Your task to perform on an android device: See recent photos Image 0: 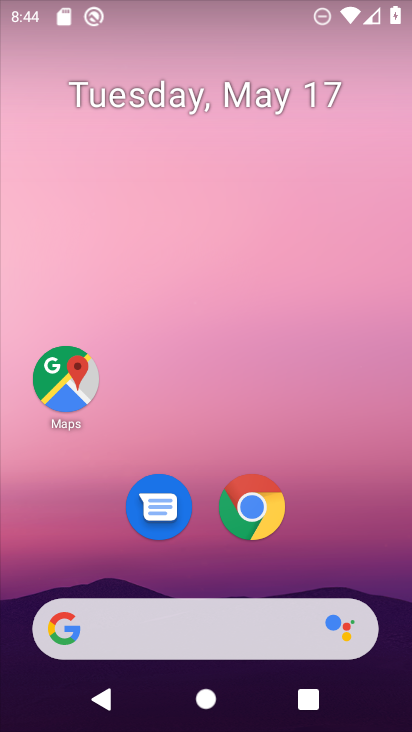
Step 0: drag from (384, 481) to (275, 5)
Your task to perform on an android device: See recent photos Image 1: 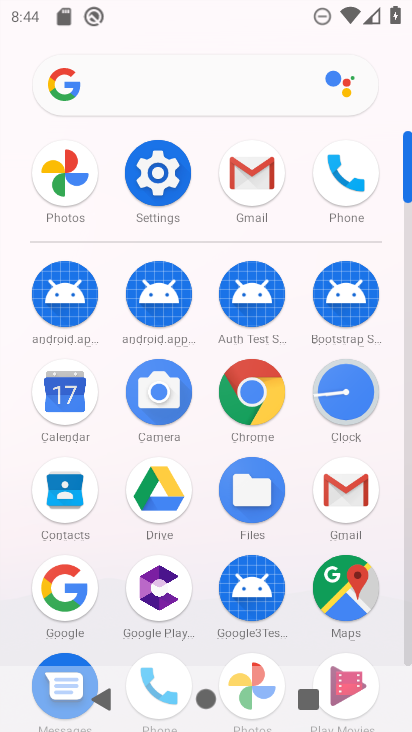
Step 1: click (59, 169)
Your task to perform on an android device: See recent photos Image 2: 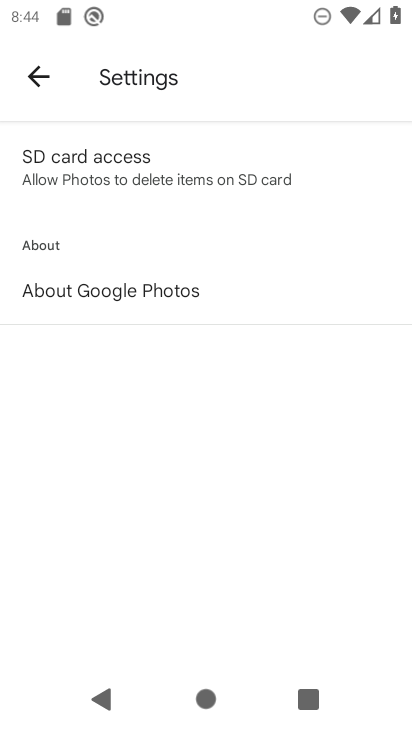
Step 2: click (32, 63)
Your task to perform on an android device: See recent photos Image 3: 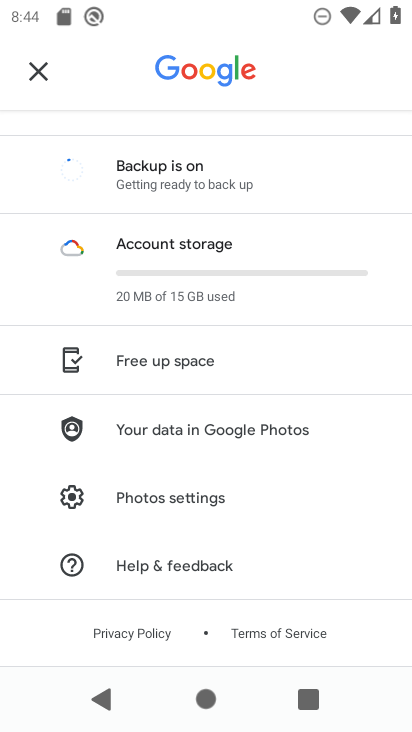
Step 3: press back button
Your task to perform on an android device: See recent photos Image 4: 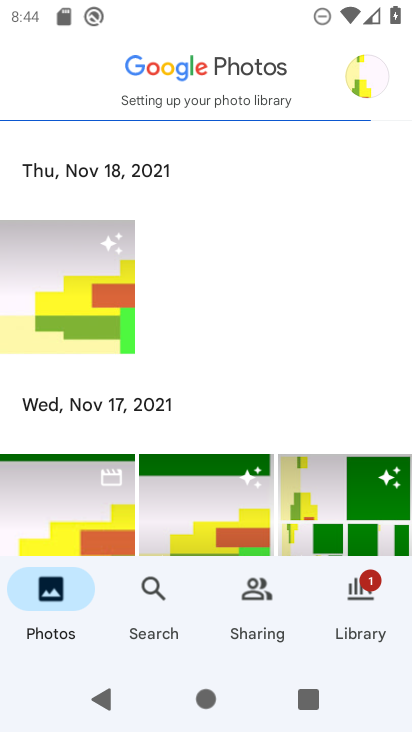
Step 4: click (359, 609)
Your task to perform on an android device: See recent photos Image 5: 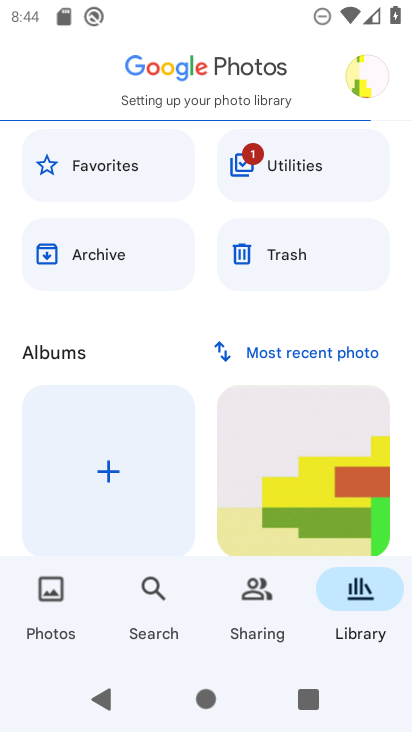
Step 5: drag from (328, 430) to (316, 159)
Your task to perform on an android device: See recent photos Image 6: 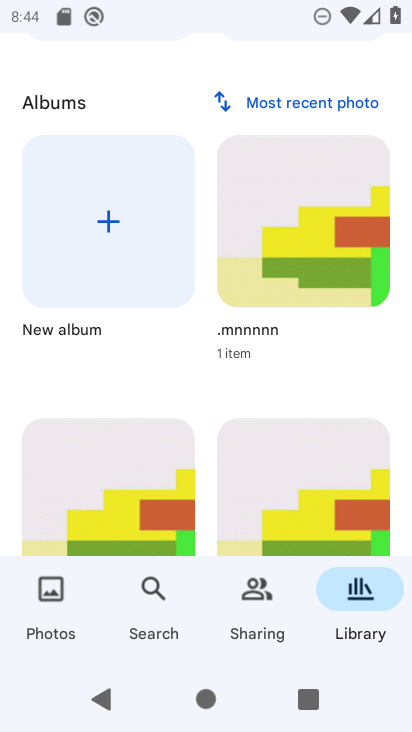
Step 6: click (312, 104)
Your task to perform on an android device: See recent photos Image 7: 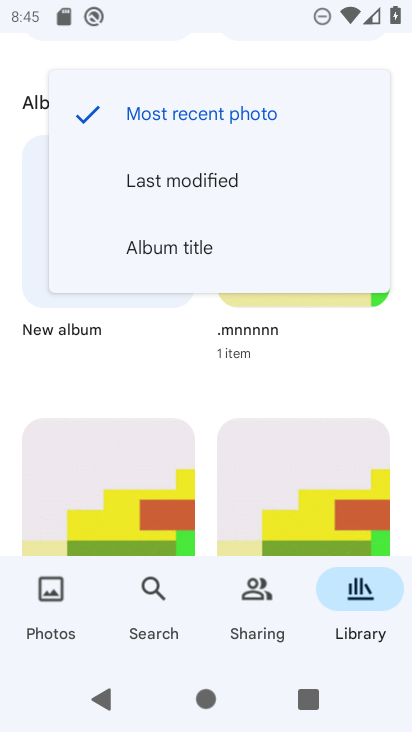
Step 7: click (202, 125)
Your task to perform on an android device: See recent photos Image 8: 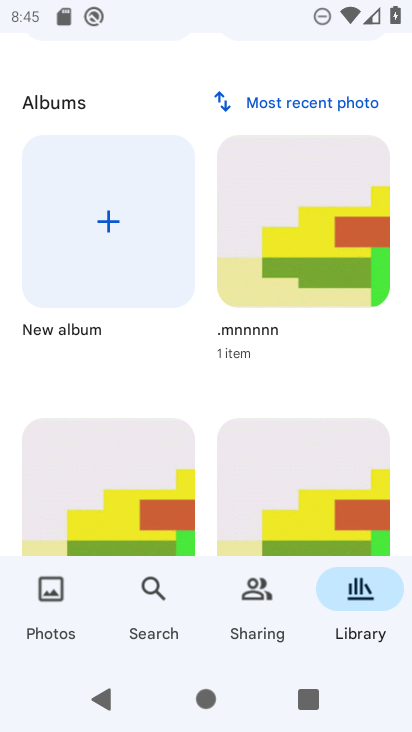
Step 8: click (308, 254)
Your task to perform on an android device: See recent photos Image 9: 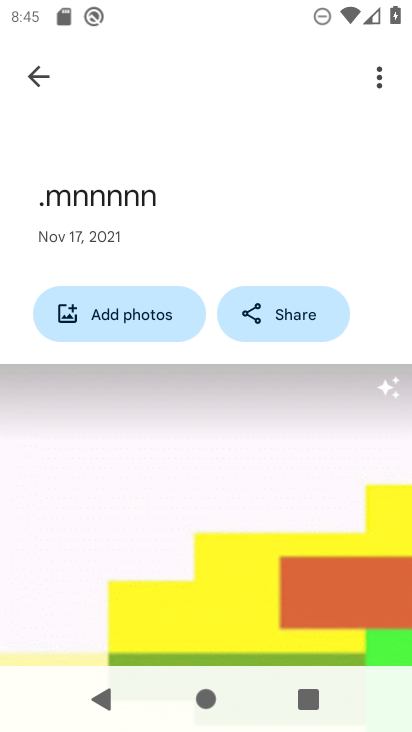
Step 9: click (34, 78)
Your task to perform on an android device: See recent photos Image 10: 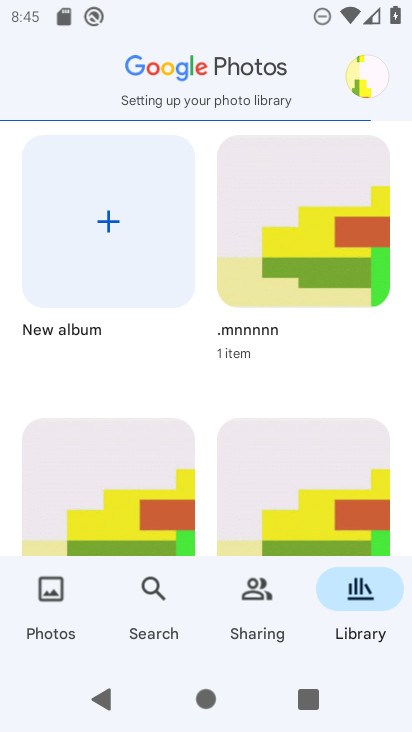
Step 10: task complete